Your task to perform on an android device: toggle show notifications on the lock screen Image 0: 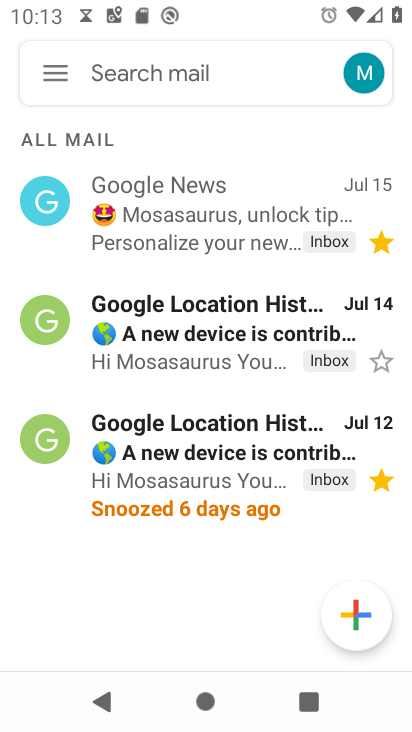
Step 0: press home button
Your task to perform on an android device: toggle show notifications on the lock screen Image 1: 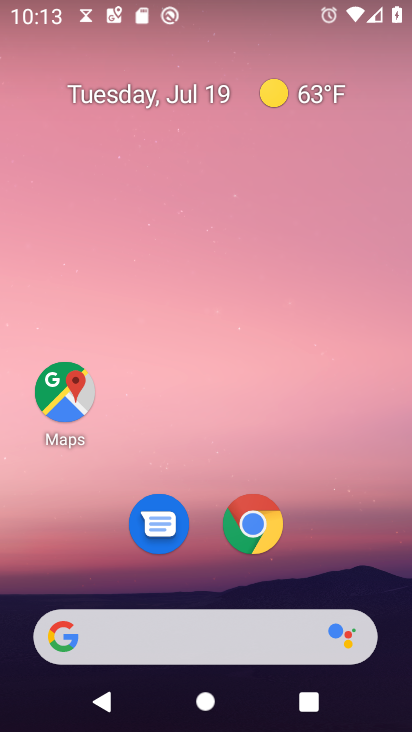
Step 1: drag from (166, 629) to (354, 73)
Your task to perform on an android device: toggle show notifications on the lock screen Image 2: 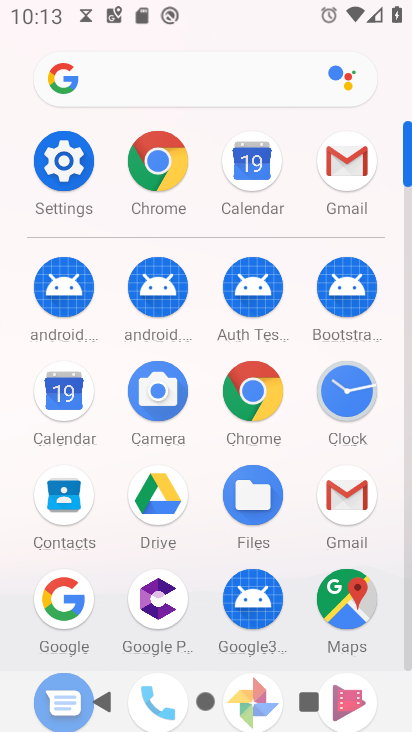
Step 2: click (77, 164)
Your task to perform on an android device: toggle show notifications on the lock screen Image 3: 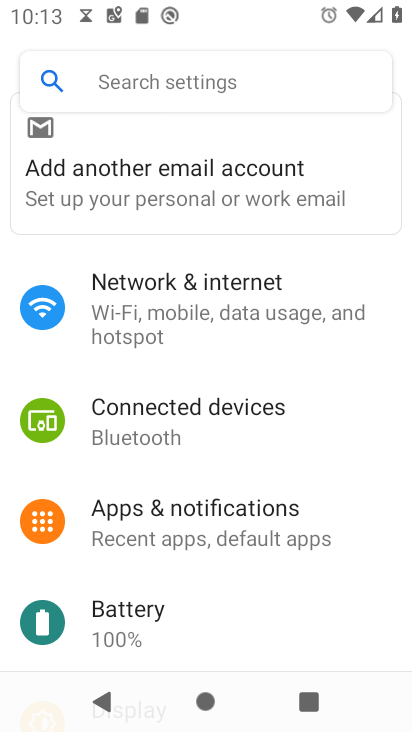
Step 3: click (208, 518)
Your task to perform on an android device: toggle show notifications on the lock screen Image 4: 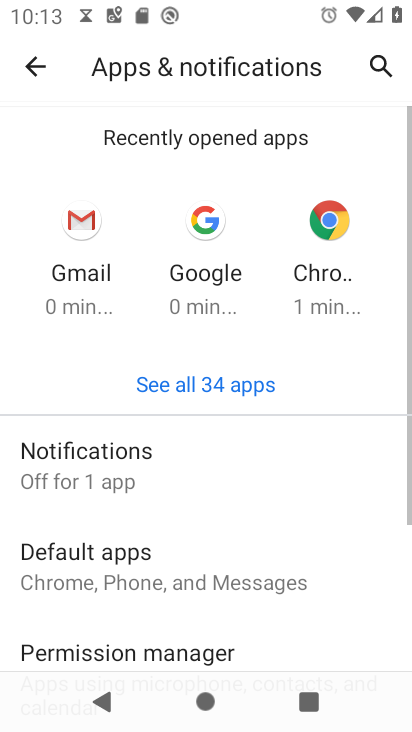
Step 4: click (114, 463)
Your task to perform on an android device: toggle show notifications on the lock screen Image 5: 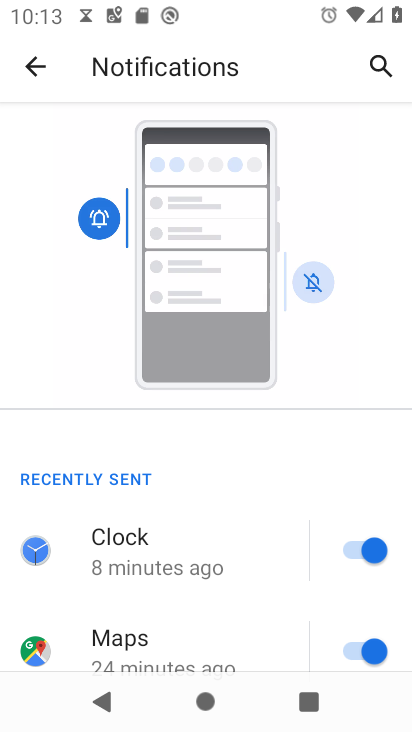
Step 5: drag from (241, 540) to (370, 175)
Your task to perform on an android device: toggle show notifications on the lock screen Image 6: 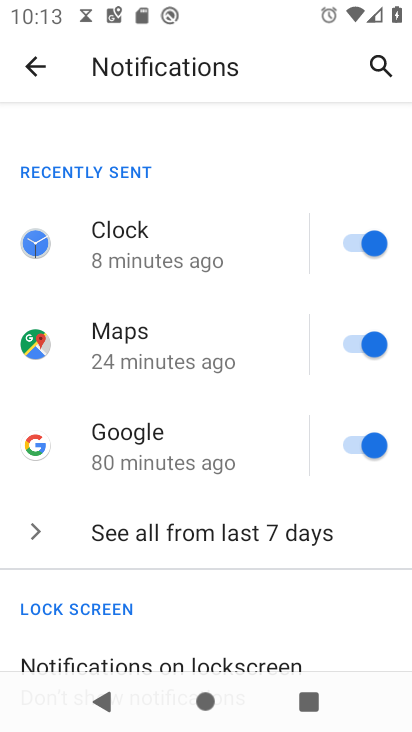
Step 6: drag from (228, 593) to (324, 188)
Your task to perform on an android device: toggle show notifications on the lock screen Image 7: 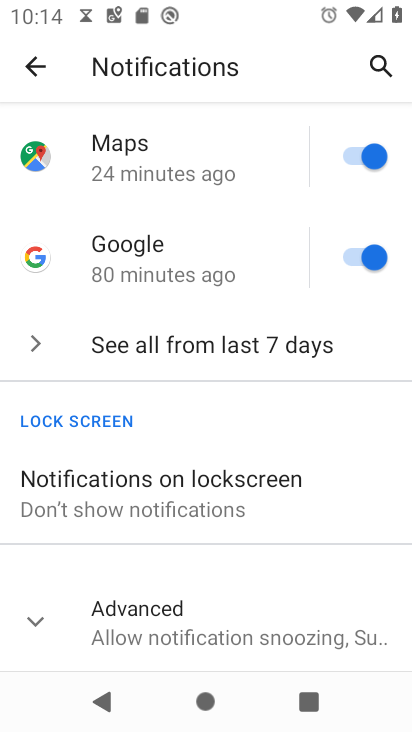
Step 7: click (161, 481)
Your task to perform on an android device: toggle show notifications on the lock screen Image 8: 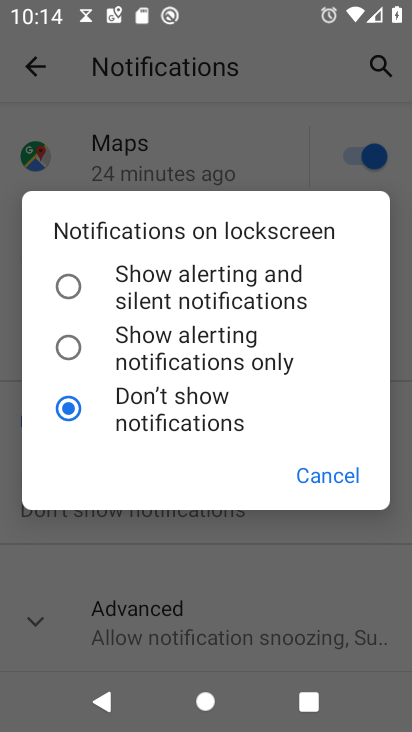
Step 8: click (67, 273)
Your task to perform on an android device: toggle show notifications on the lock screen Image 9: 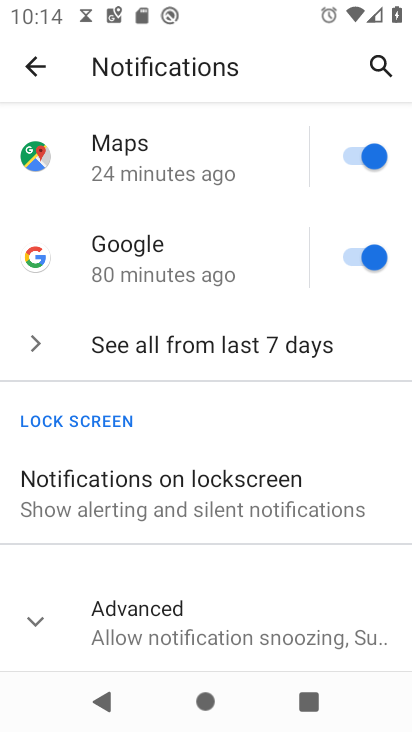
Step 9: task complete